Your task to perform on an android device: Open the calendar app, open the side menu, and click the "Day" option Image 0: 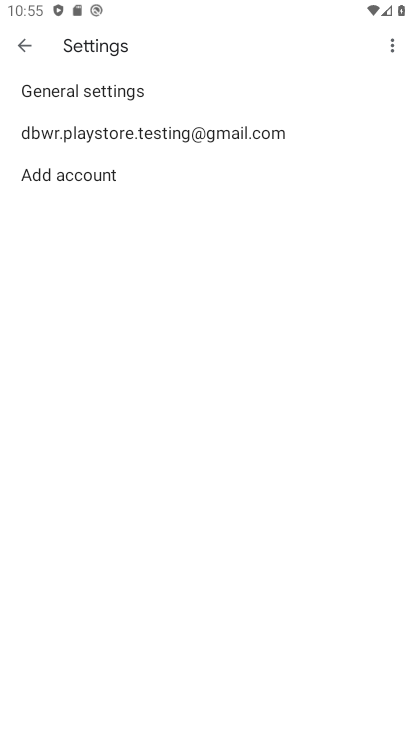
Step 0: press home button
Your task to perform on an android device: Open the calendar app, open the side menu, and click the "Day" option Image 1: 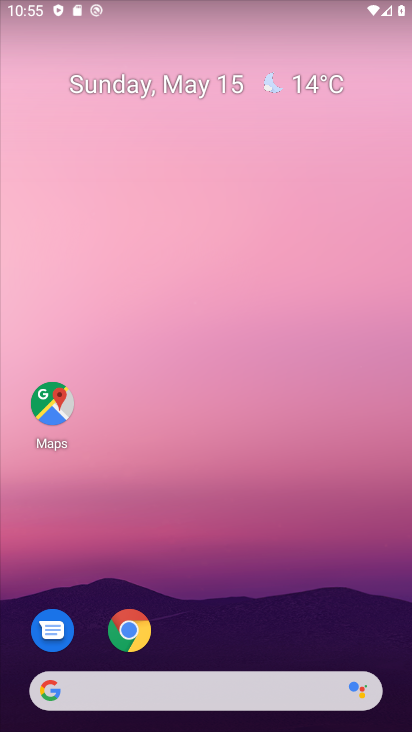
Step 1: drag from (68, 494) to (268, 197)
Your task to perform on an android device: Open the calendar app, open the side menu, and click the "Day" option Image 2: 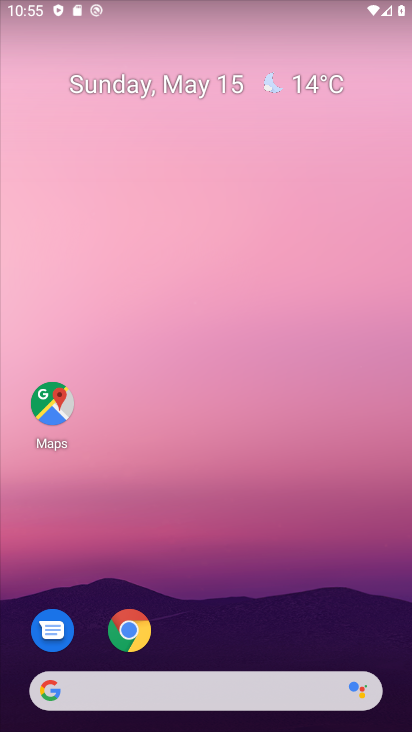
Step 2: drag from (78, 447) to (264, 111)
Your task to perform on an android device: Open the calendar app, open the side menu, and click the "Day" option Image 3: 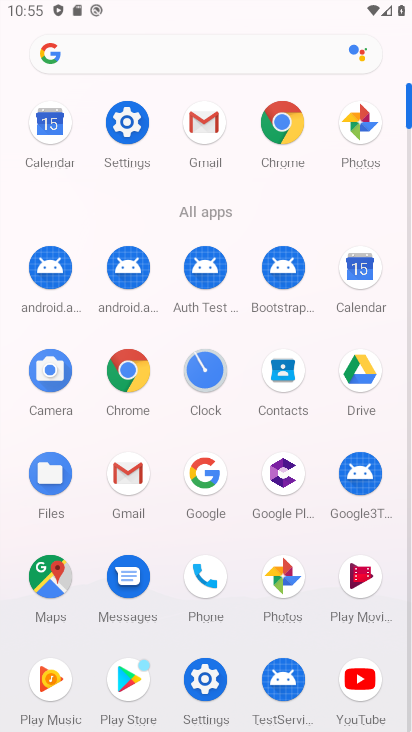
Step 3: click (376, 277)
Your task to perform on an android device: Open the calendar app, open the side menu, and click the "Day" option Image 4: 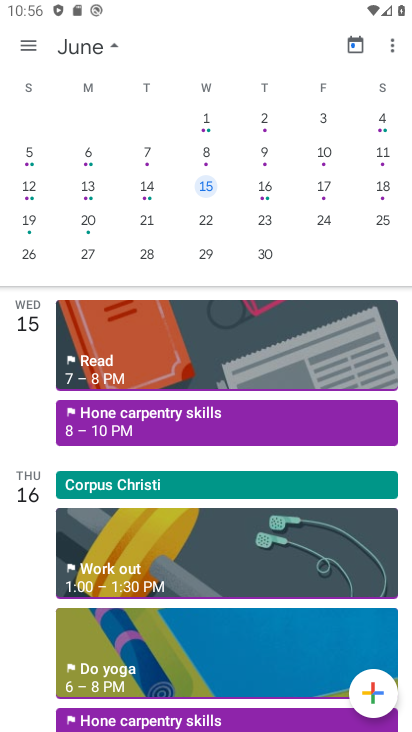
Step 4: click (18, 42)
Your task to perform on an android device: Open the calendar app, open the side menu, and click the "Day" option Image 5: 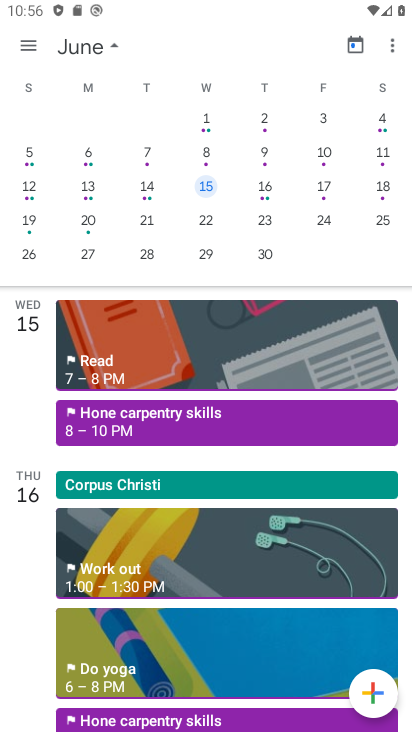
Step 5: click (25, 45)
Your task to perform on an android device: Open the calendar app, open the side menu, and click the "Day" option Image 6: 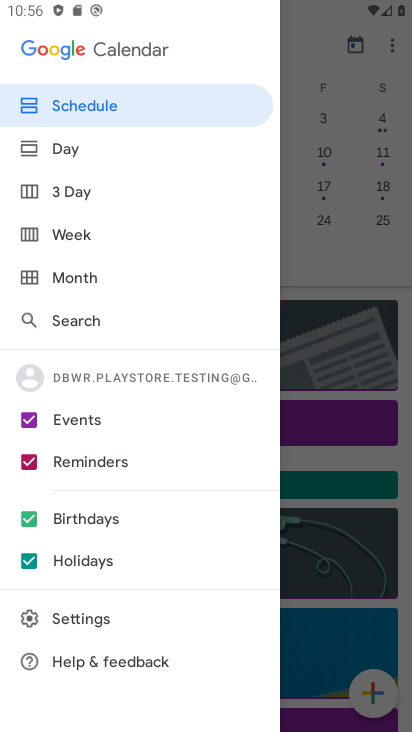
Step 6: click (99, 147)
Your task to perform on an android device: Open the calendar app, open the side menu, and click the "Day" option Image 7: 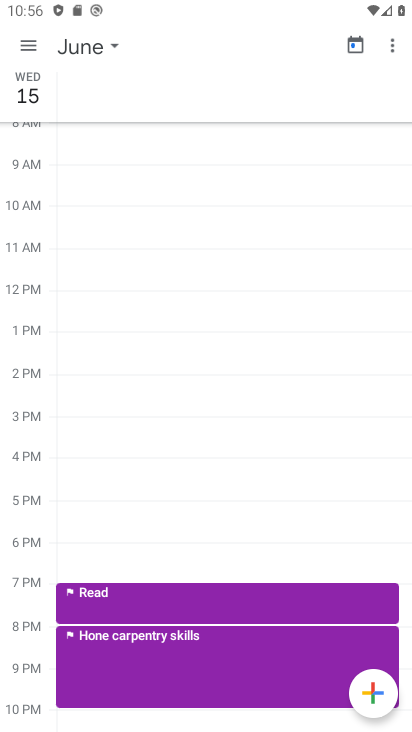
Step 7: task complete